Your task to perform on an android device: change the upload size in google photos Image 0: 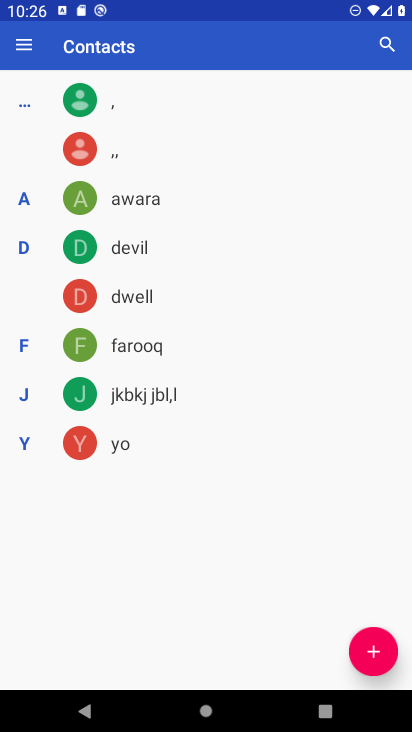
Step 0: press home button
Your task to perform on an android device: change the upload size in google photos Image 1: 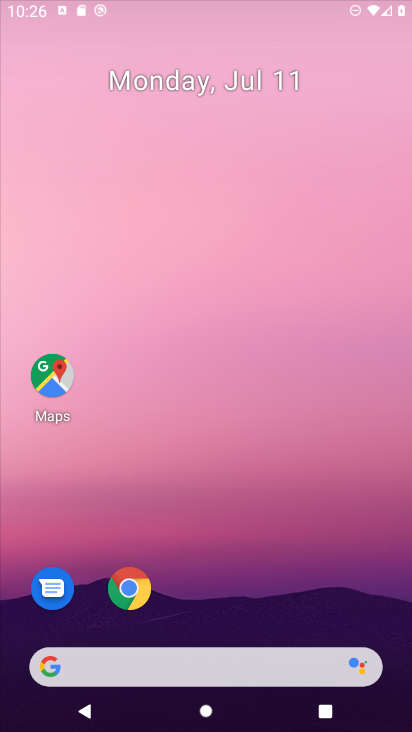
Step 1: drag from (380, 637) to (205, 49)
Your task to perform on an android device: change the upload size in google photos Image 2: 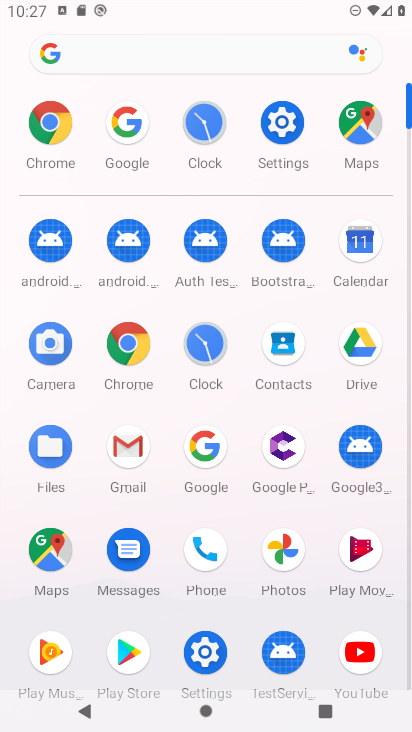
Step 2: click (269, 543)
Your task to perform on an android device: change the upload size in google photos Image 3: 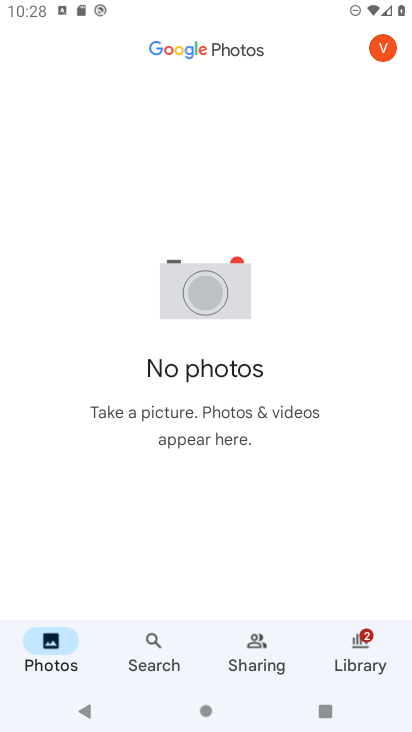
Step 3: click (384, 58)
Your task to perform on an android device: change the upload size in google photos Image 4: 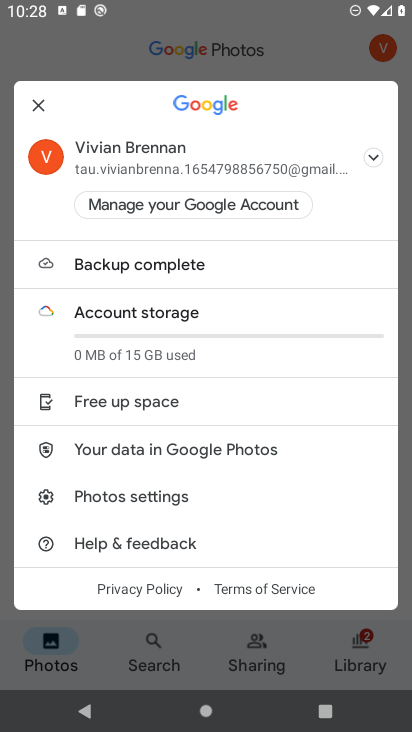
Step 4: click (147, 491)
Your task to perform on an android device: change the upload size in google photos Image 5: 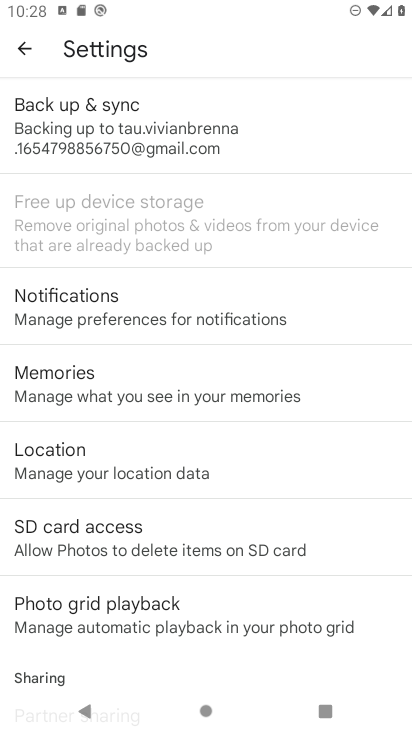
Step 5: click (140, 132)
Your task to perform on an android device: change the upload size in google photos Image 6: 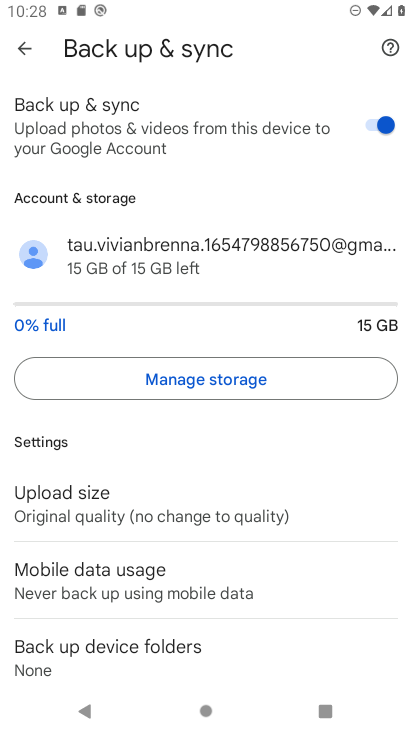
Step 6: click (121, 493)
Your task to perform on an android device: change the upload size in google photos Image 7: 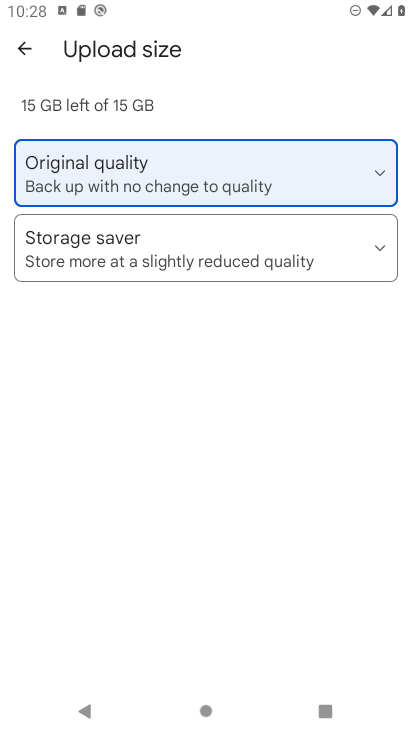
Step 7: click (112, 258)
Your task to perform on an android device: change the upload size in google photos Image 8: 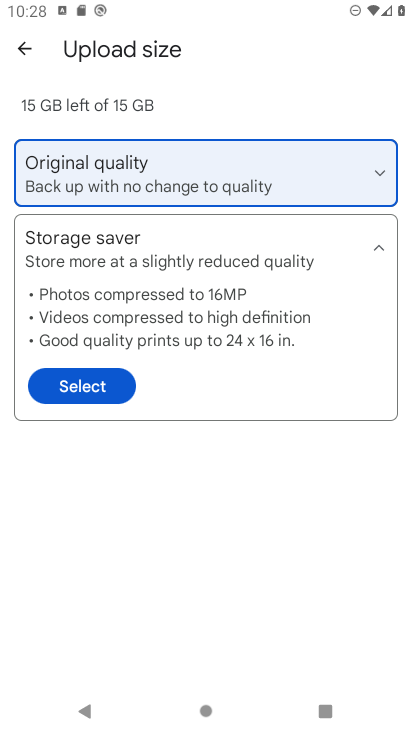
Step 8: click (74, 383)
Your task to perform on an android device: change the upload size in google photos Image 9: 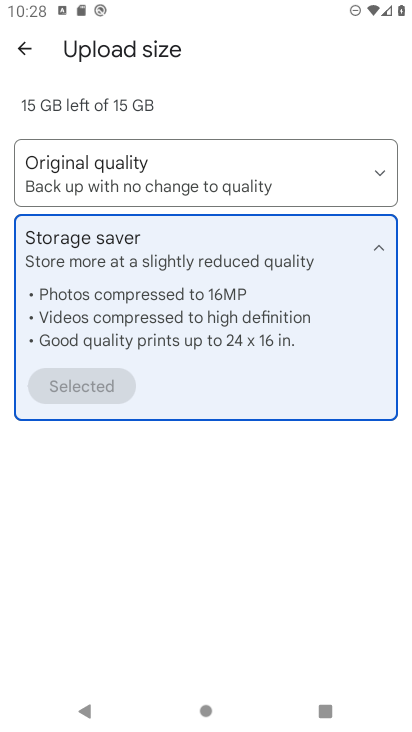
Step 9: task complete